Your task to perform on an android device: What's the weather going to be tomorrow? Image 0: 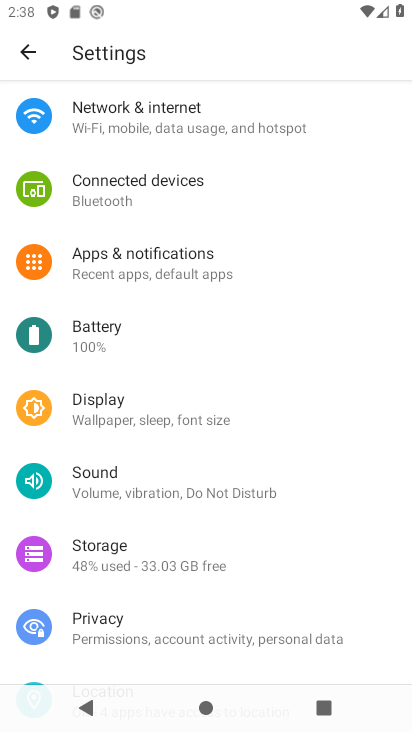
Step 0: press home button
Your task to perform on an android device: What's the weather going to be tomorrow? Image 1: 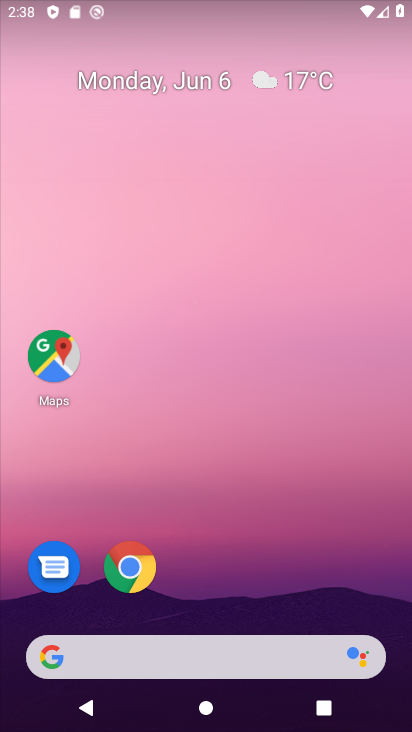
Step 1: click (250, 647)
Your task to perform on an android device: What's the weather going to be tomorrow? Image 2: 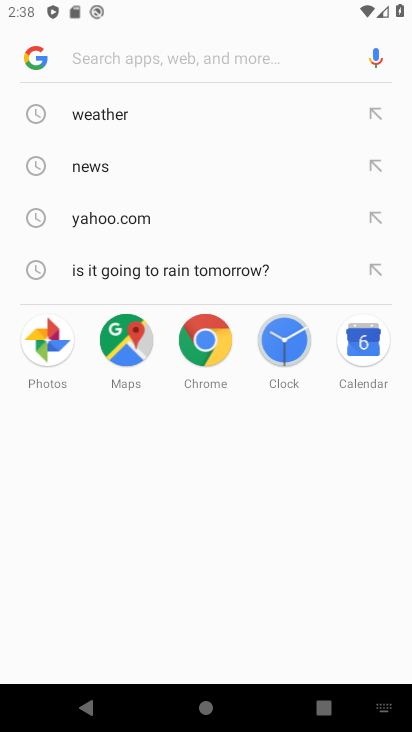
Step 2: click (105, 116)
Your task to perform on an android device: What's the weather going to be tomorrow? Image 3: 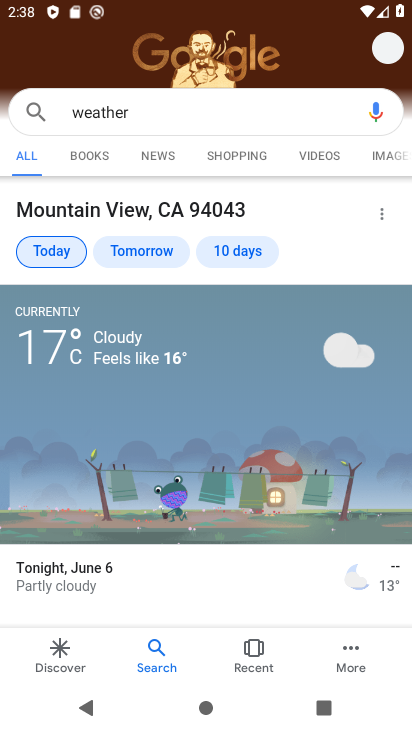
Step 3: click (161, 236)
Your task to perform on an android device: What's the weather going to be tomorrow? Image 4: 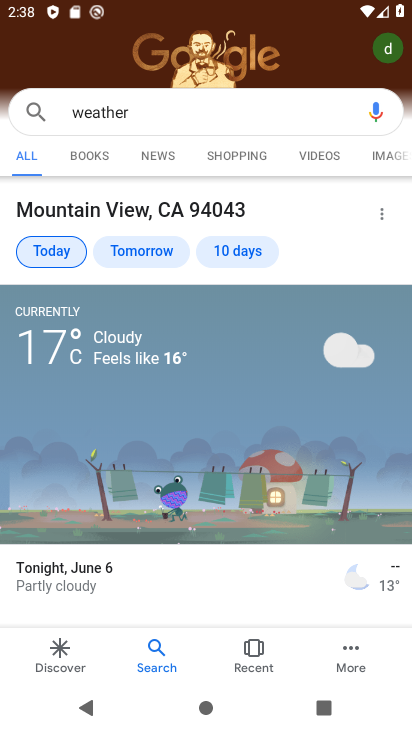
Step 4: click (161, 252)
Your task to perform on an android device: What's the weather going to be tomorrow? Image 5: 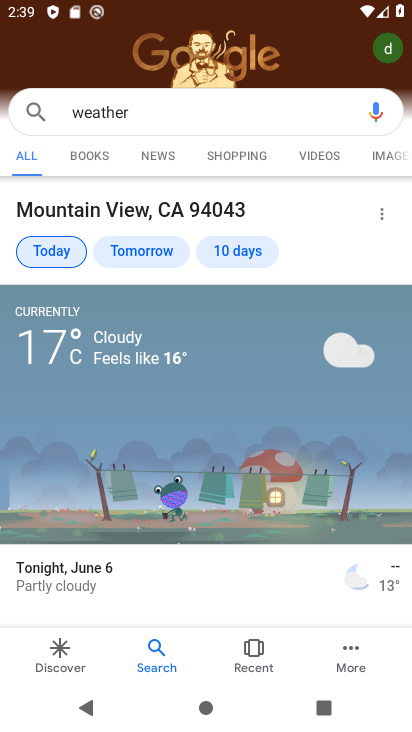
Step 5: click (162, 252)
Your task to perform on an android device: What's the weather going to be tomorrow? Image 6: 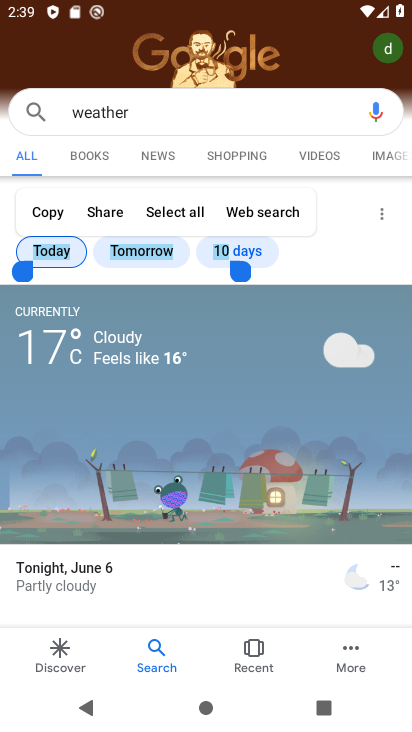
Step 6: task complete